Your task to perform on an android device: turn on javascript in the chrome app Image 0: 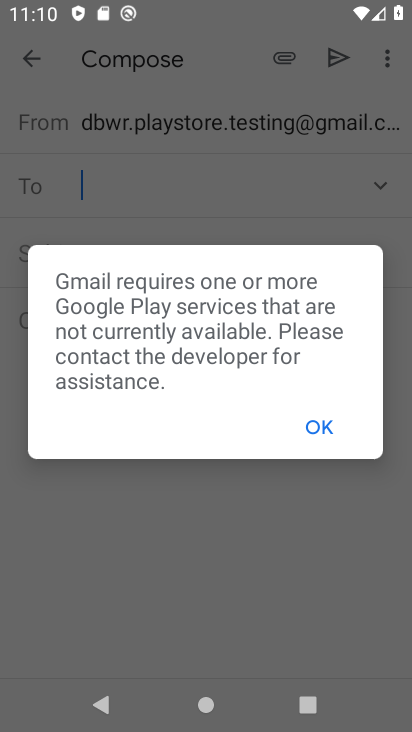
Step 0: press home button
Your task to perform on an android device: turn on javascript in the chrome app Image 1: 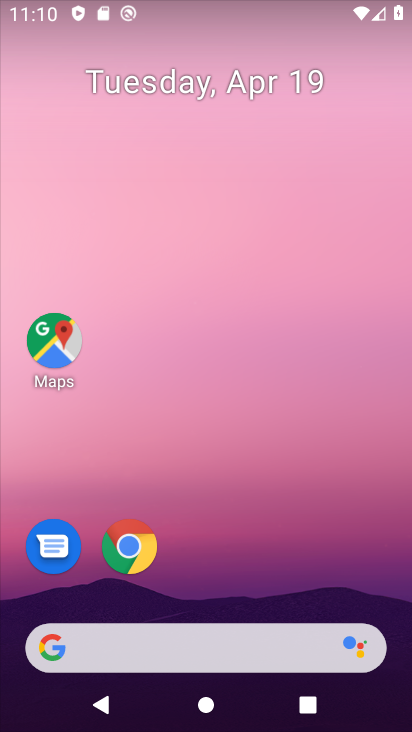
Step 1: click (136, 576)
Your task to perform on an android device: turn on javascript in the chrome app Image 2: 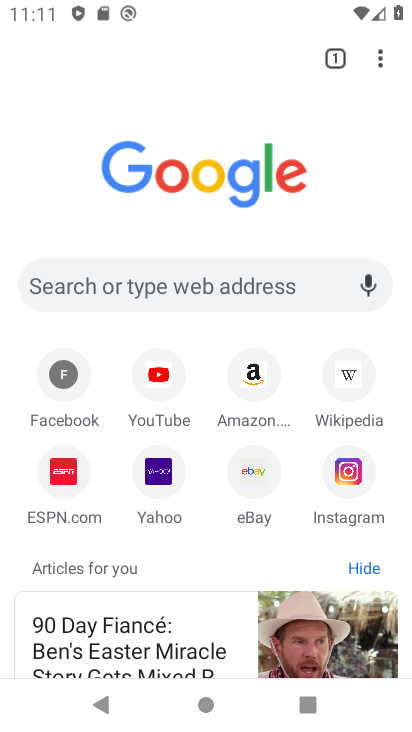
Step 2: click (380, 55)
Your task to perform on an android device: turn on javascript in the chrome app Image 3: 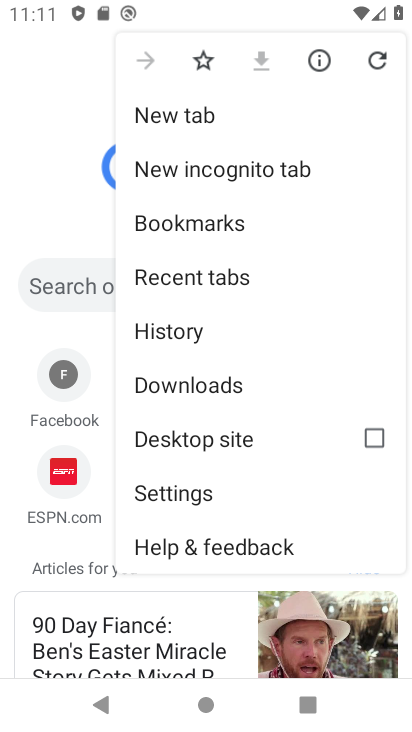
Step 3: click (182, 487)
Your task to perform on an android device: turn on javascript in the chrome app Image 4: 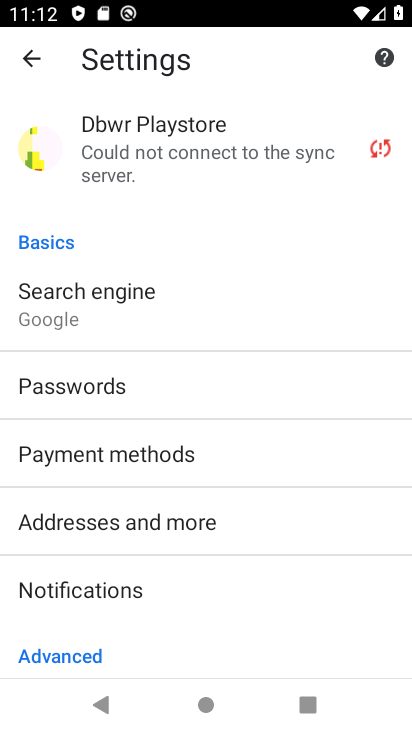
Step 4: drag from (116, 596) to (151, 174)
Your task to perform on an android device: turn on javascript in the chrome app Image 5: 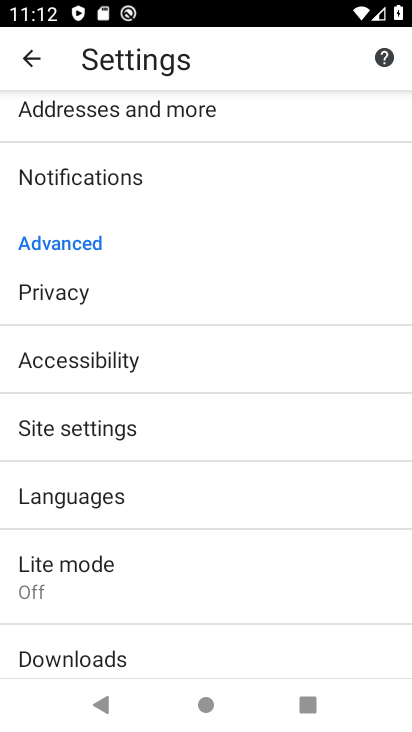
Step 5: click (205, 426)
Your task to perform on an android device: turn on javascript in the chrome app Image 6: 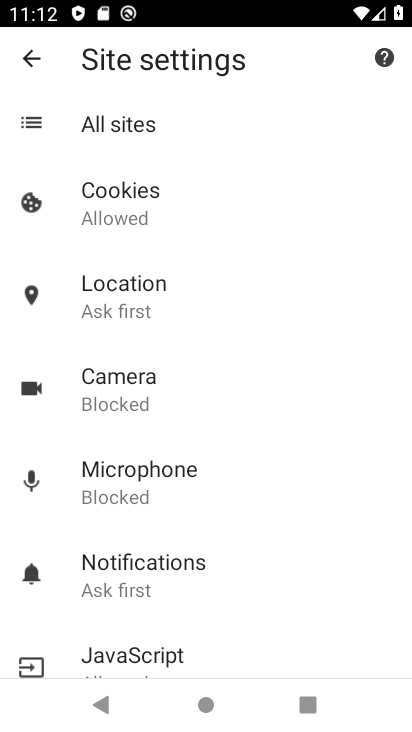
Step 6: click (115, 671)
Your task to perform on an android device: turn on javascript in the chrome app Image 7: 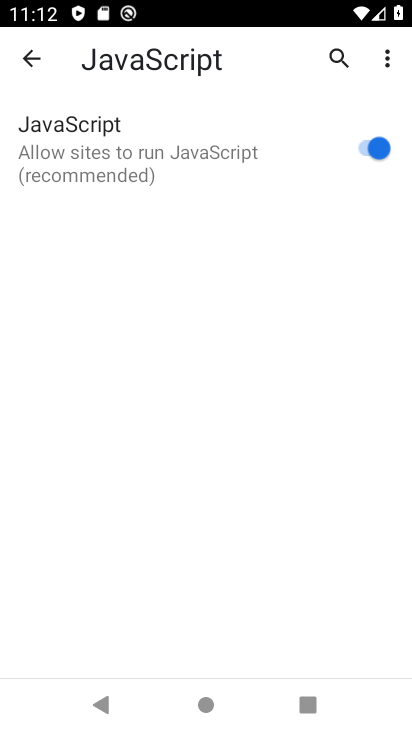
Step 7: task complete